Your task to perform on an android device: change the clock display to show seconds Image 0: 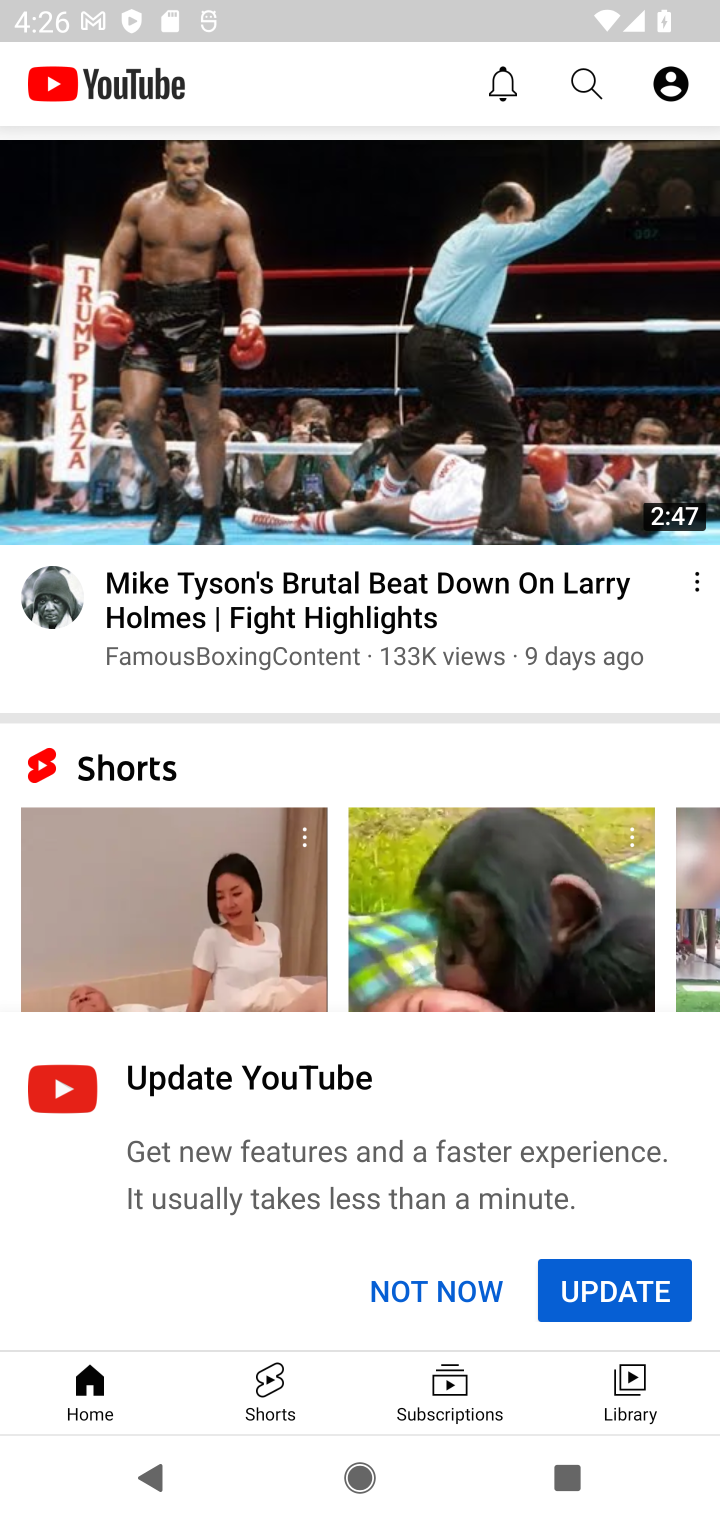
Step 0: press home button
Your task to perform on an android device: change the clock display to show seconds Image 1: 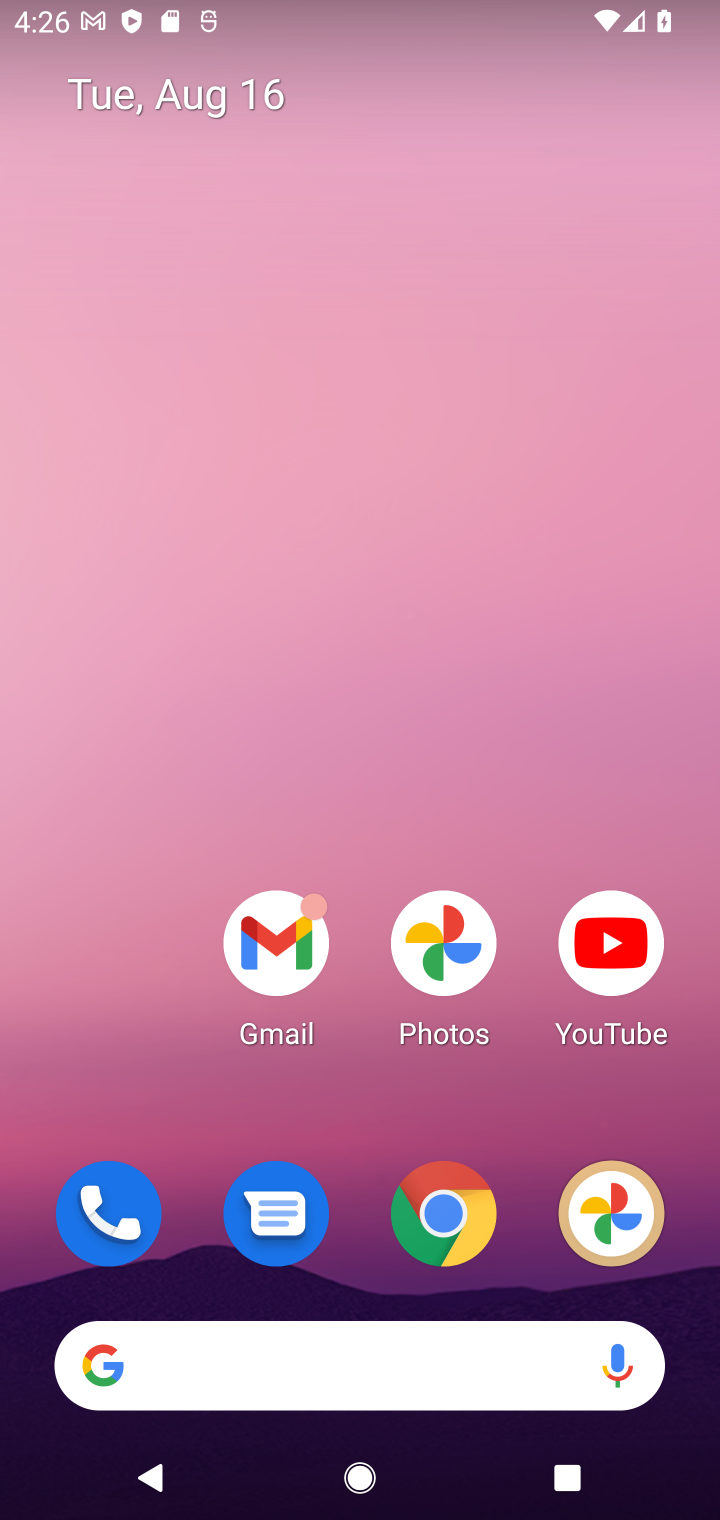
Step 1: drag from (419, 1104) to (479, 150)
Your task to perform on an android device: change the clock display to show seconds Image 2: 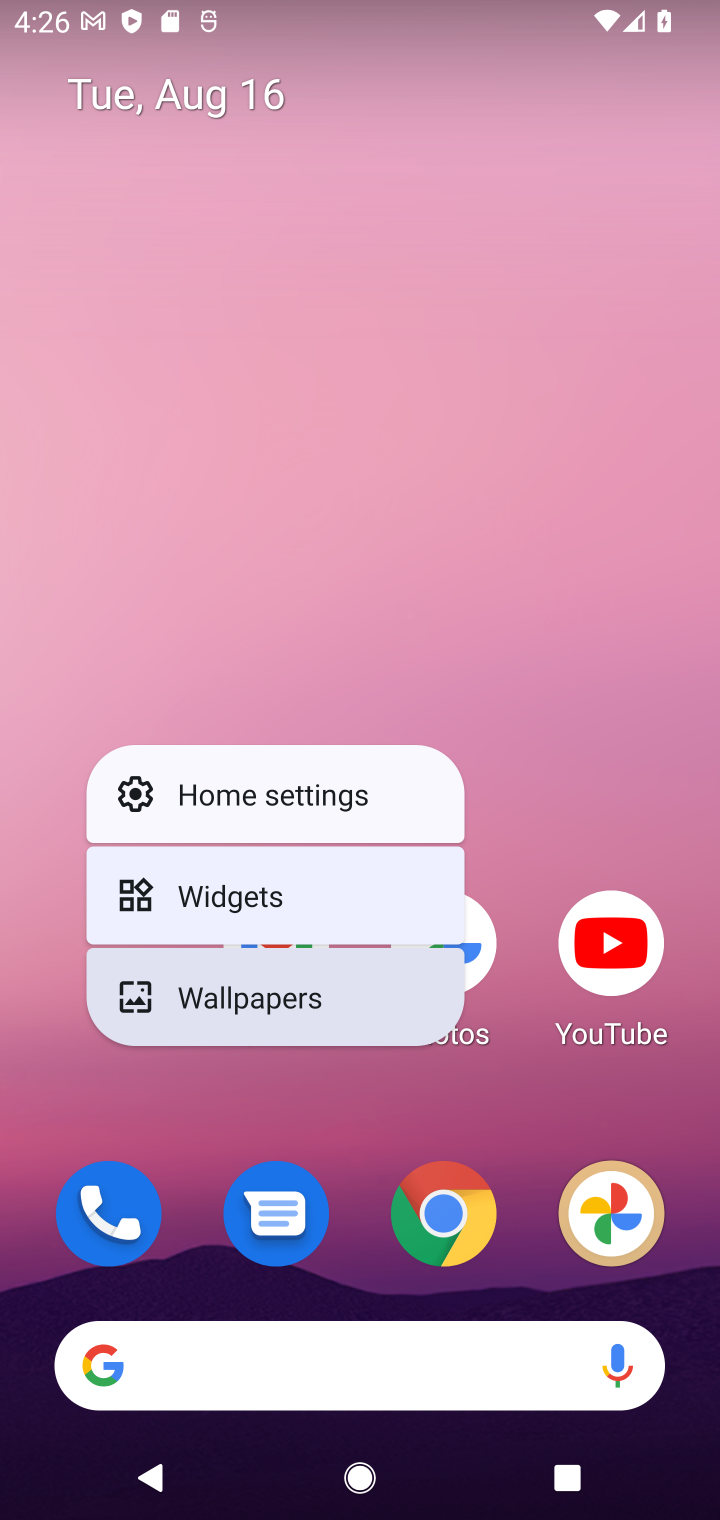
Step 2: click (252, 484)
Your task to perform on an android device: change the clock display to show seconds Image 3: 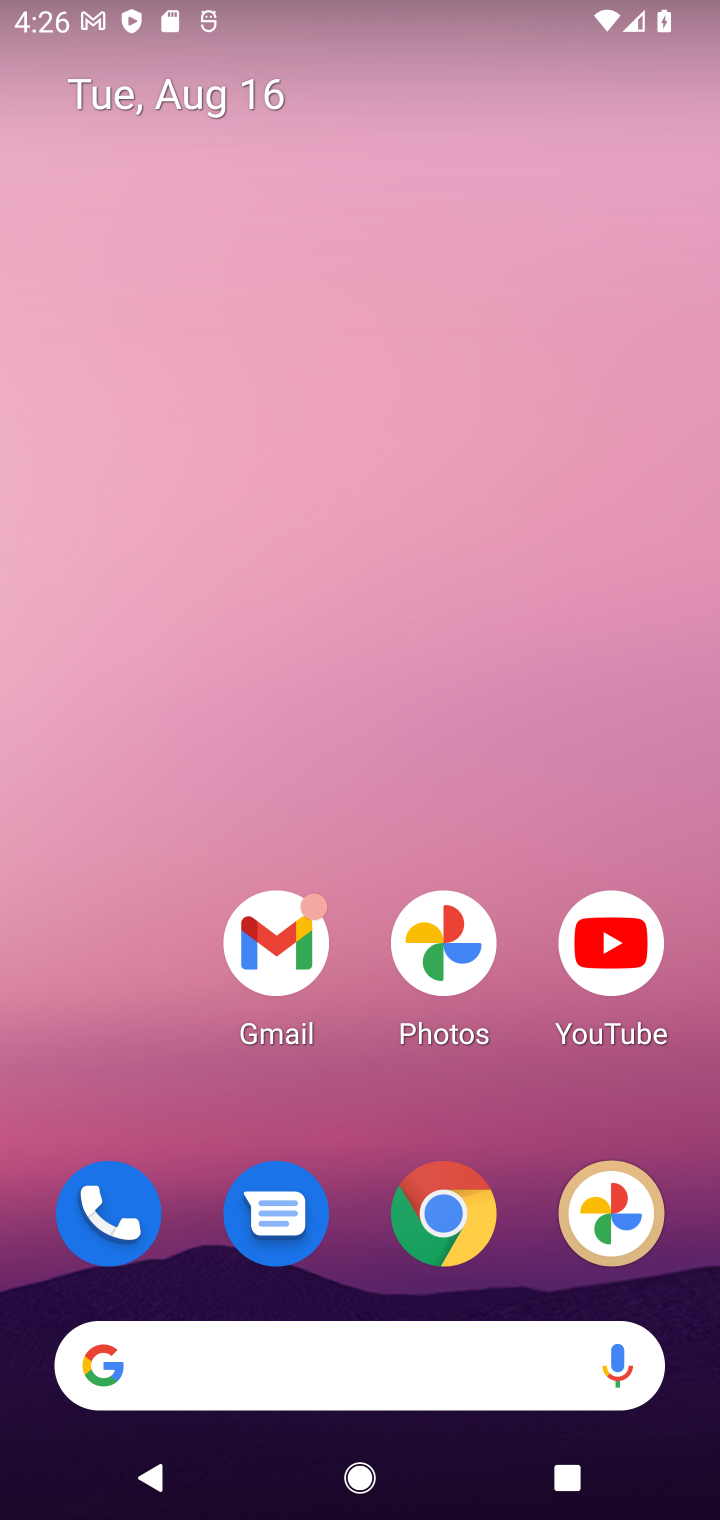
Step 3: click (130, 520)
Your task to perform on an android device: change the clock display to show seconds Image 4: 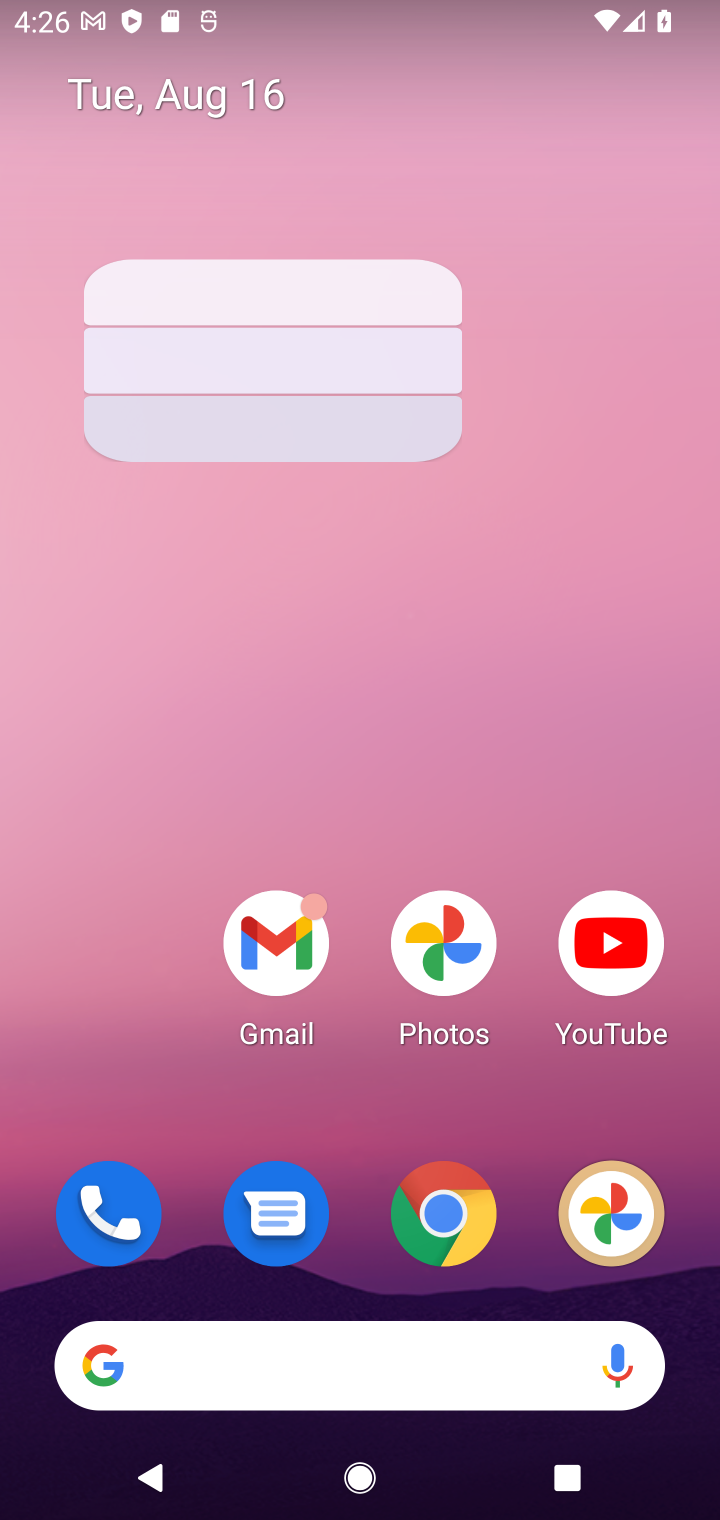
Step 4: drag from (239, 649) to (347, 19)
Your task to perform on an android device: change the clock display to show seconds Image 5: 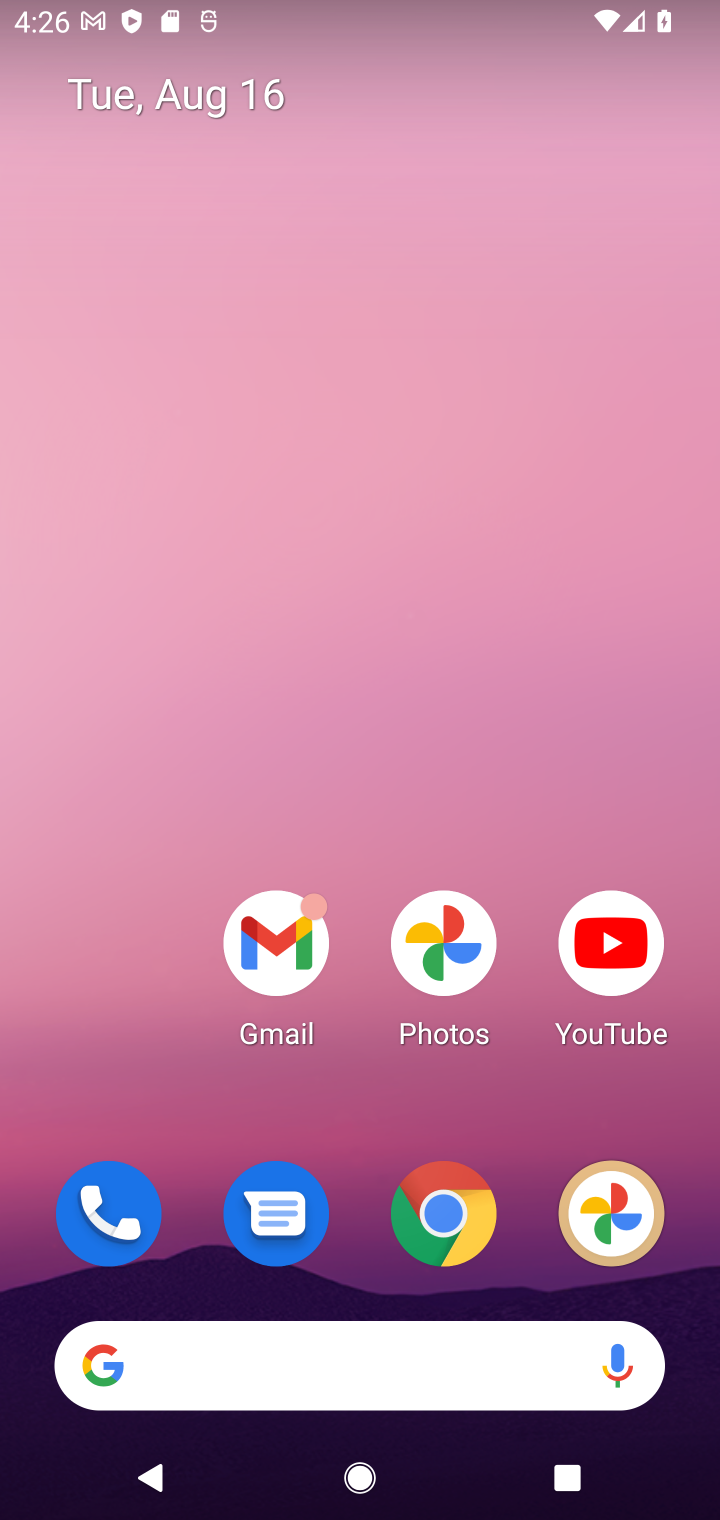
Step 5: click (534, 700)
Your task to perform on an android device: change the clock display to show seconds Image 6: 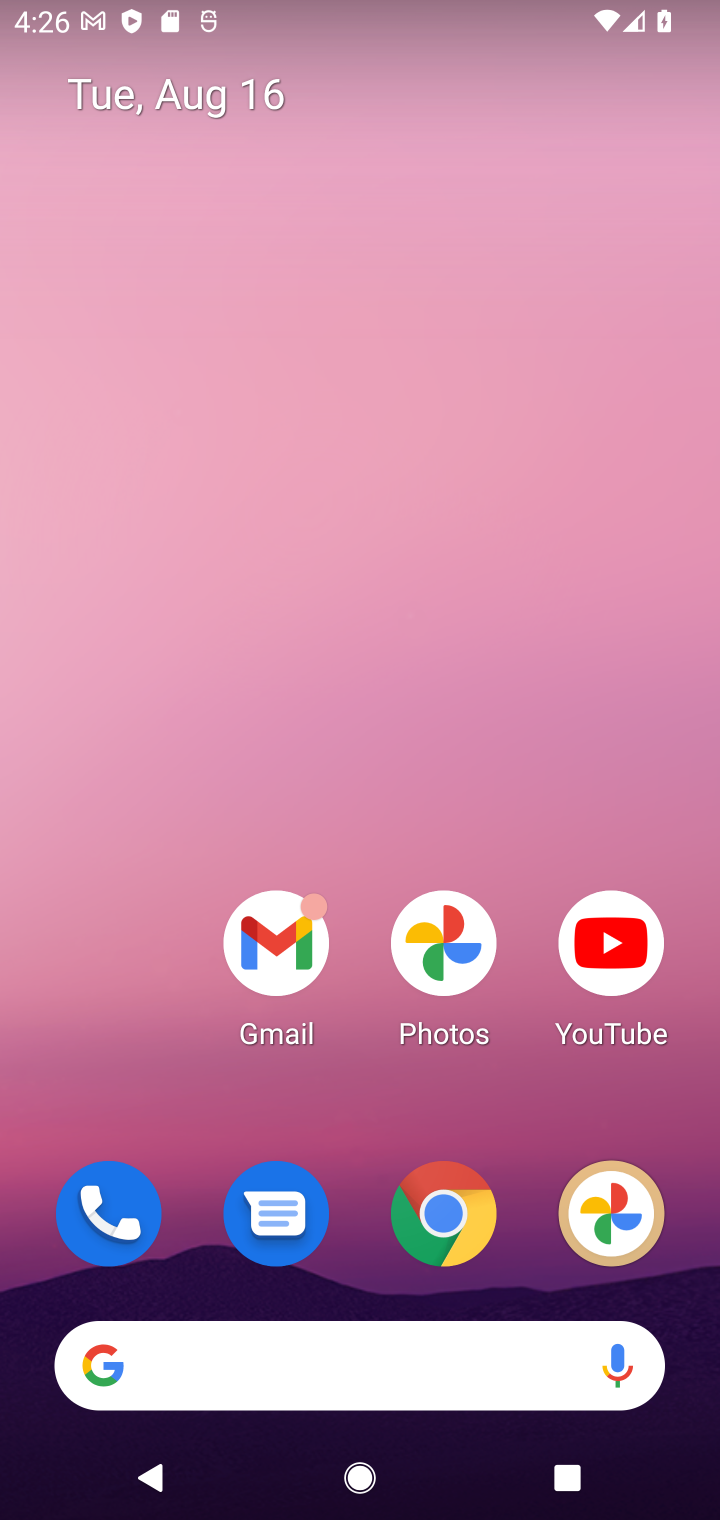
Step 6: drag from (406, 788) to (476, 135)
Your task to perform on an android device: change the clock display to show seconds Image 7: 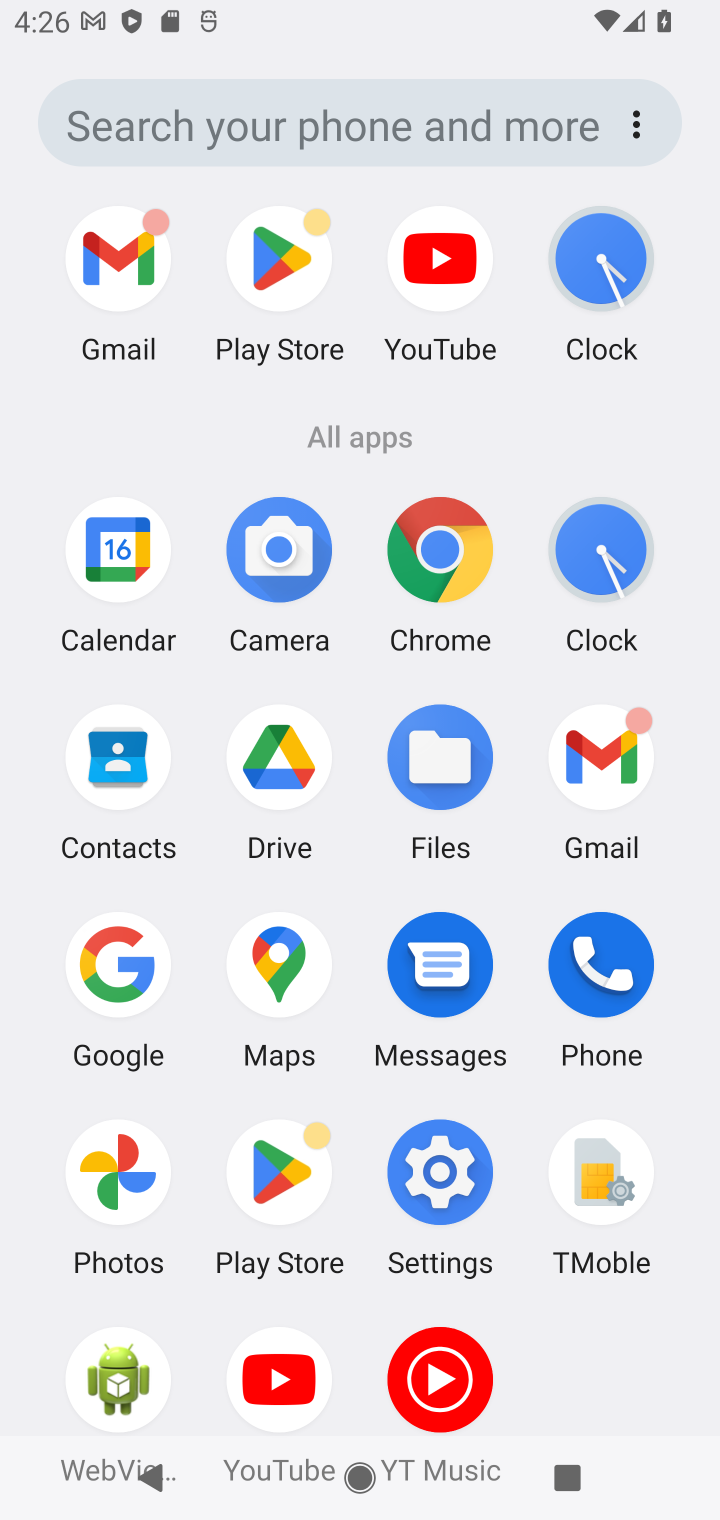
Step 7: click (603, 557)
Your task to perform on an android device: change the clock display to show seconds Image 8: 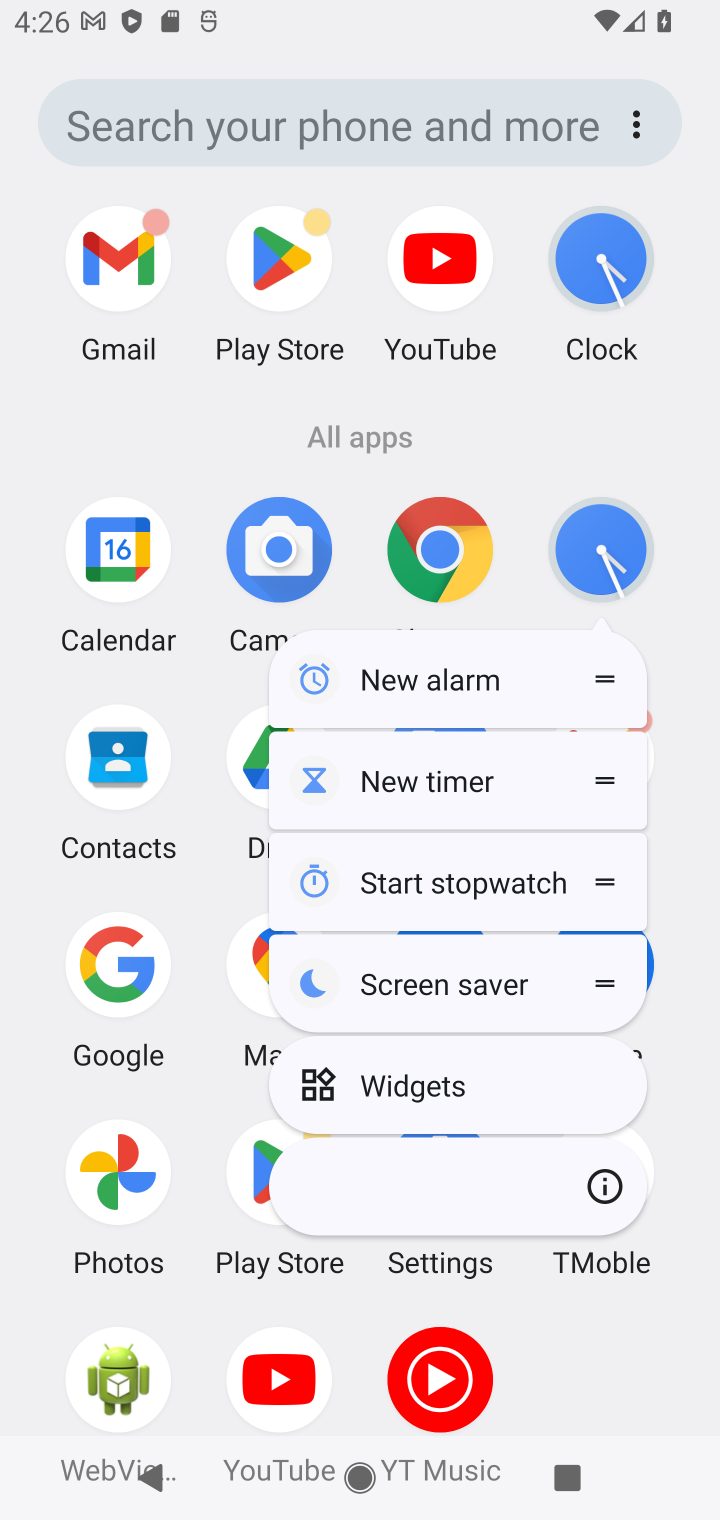
Step 8: click (605, 544)
Your task to perform on an android device: change the clock display to show seconds Image 9: 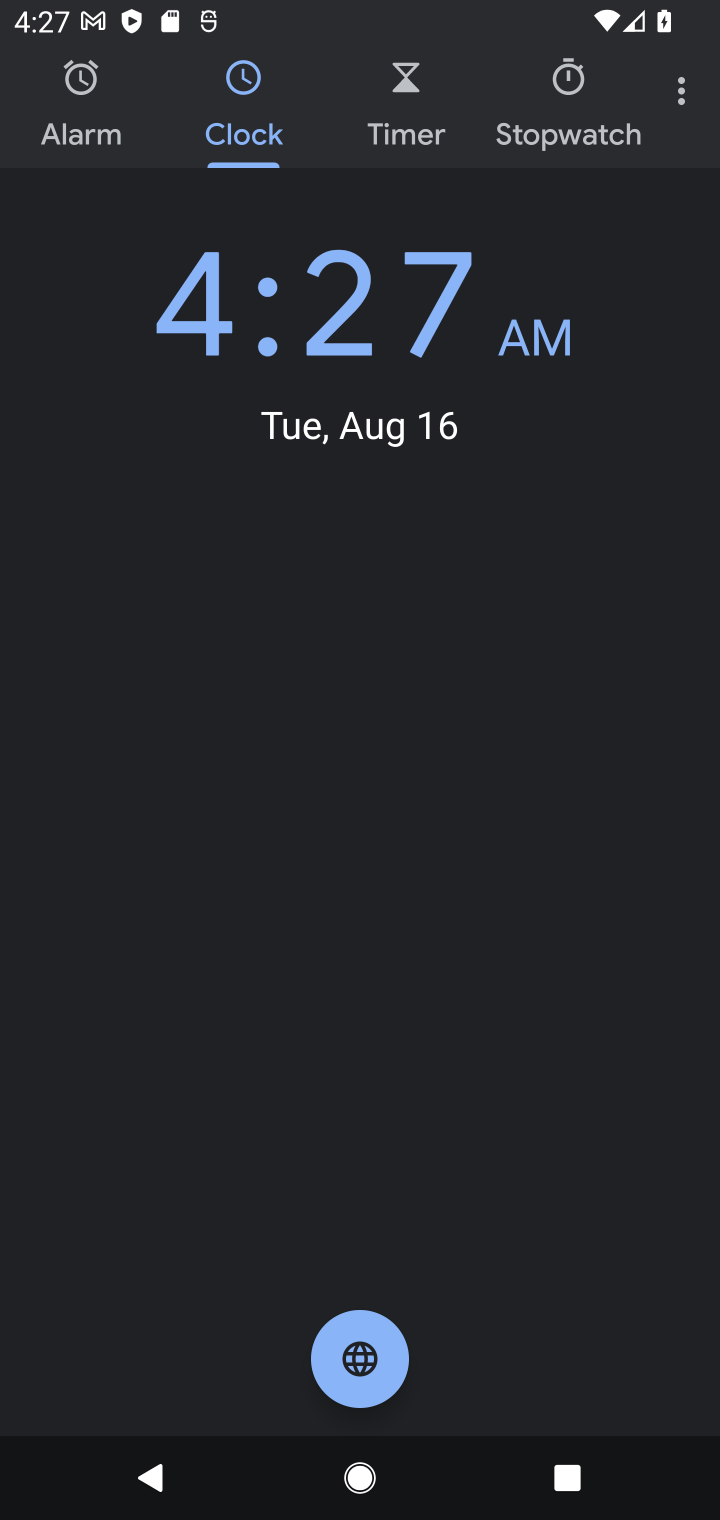
Step 9: click (682, 90)
Your task to perform on an android device: change the clock display to show seconds Image 10: 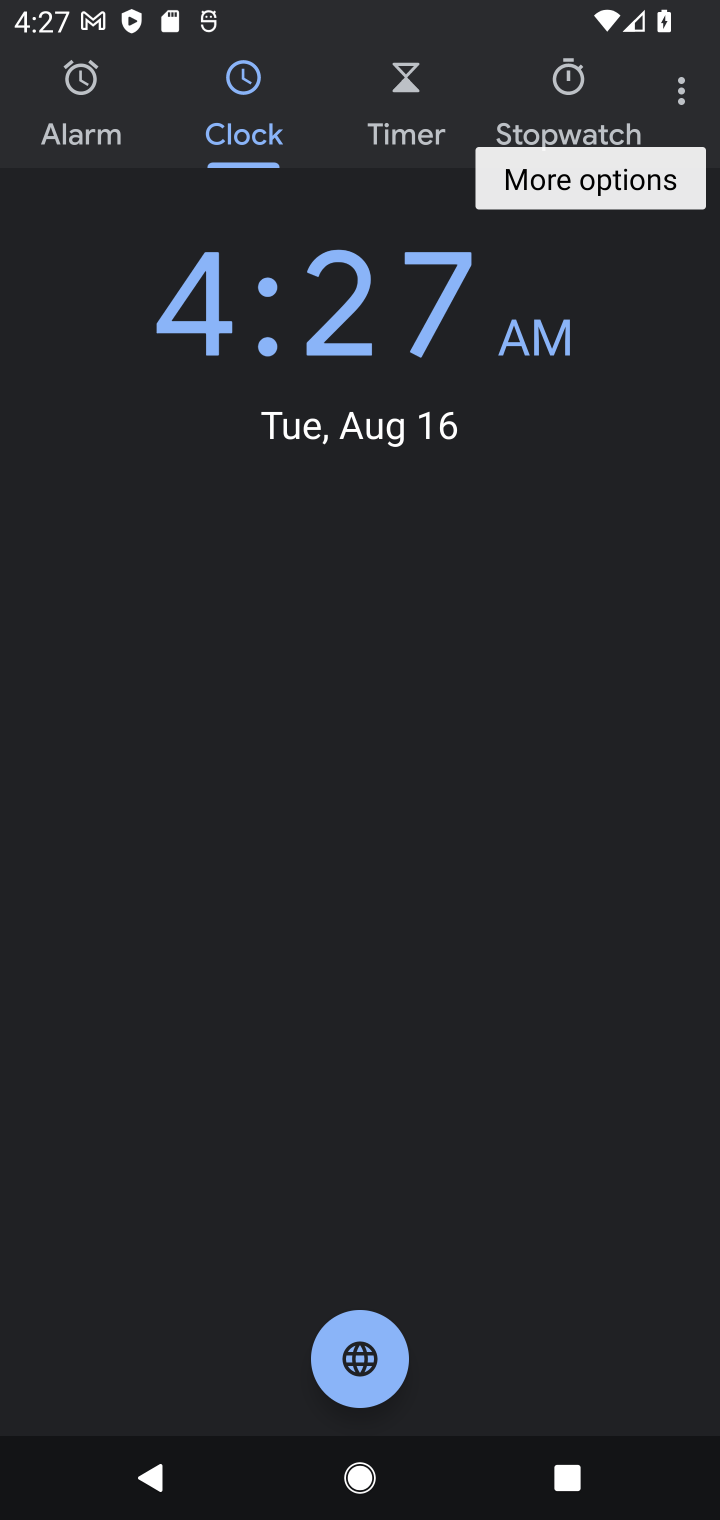
Step 10: click (682, 90)
Your task to perform on an android device: change the clock display to show seconds Image 11: 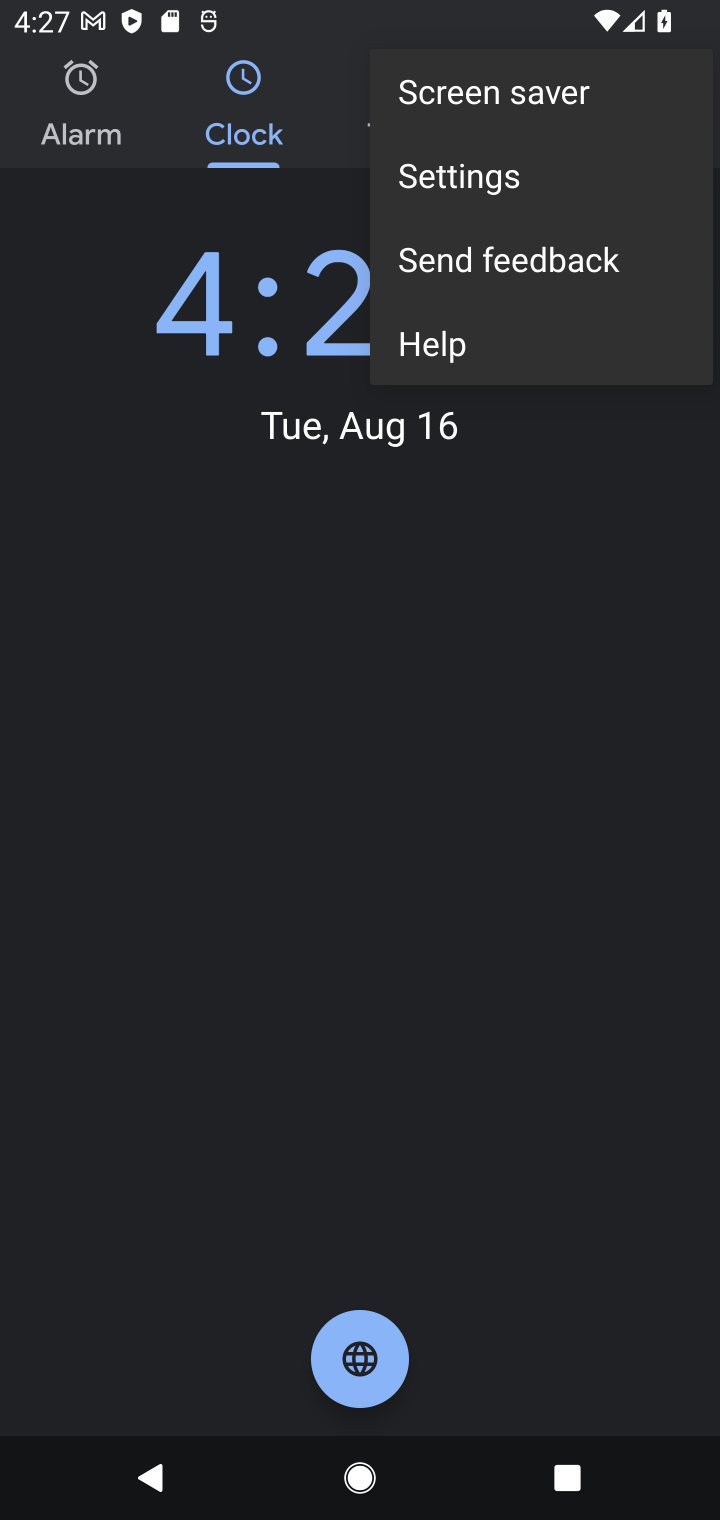
Step 11: click (525, 177)
Your task to perform on an android device: change the clock display to show seconds Image 12: 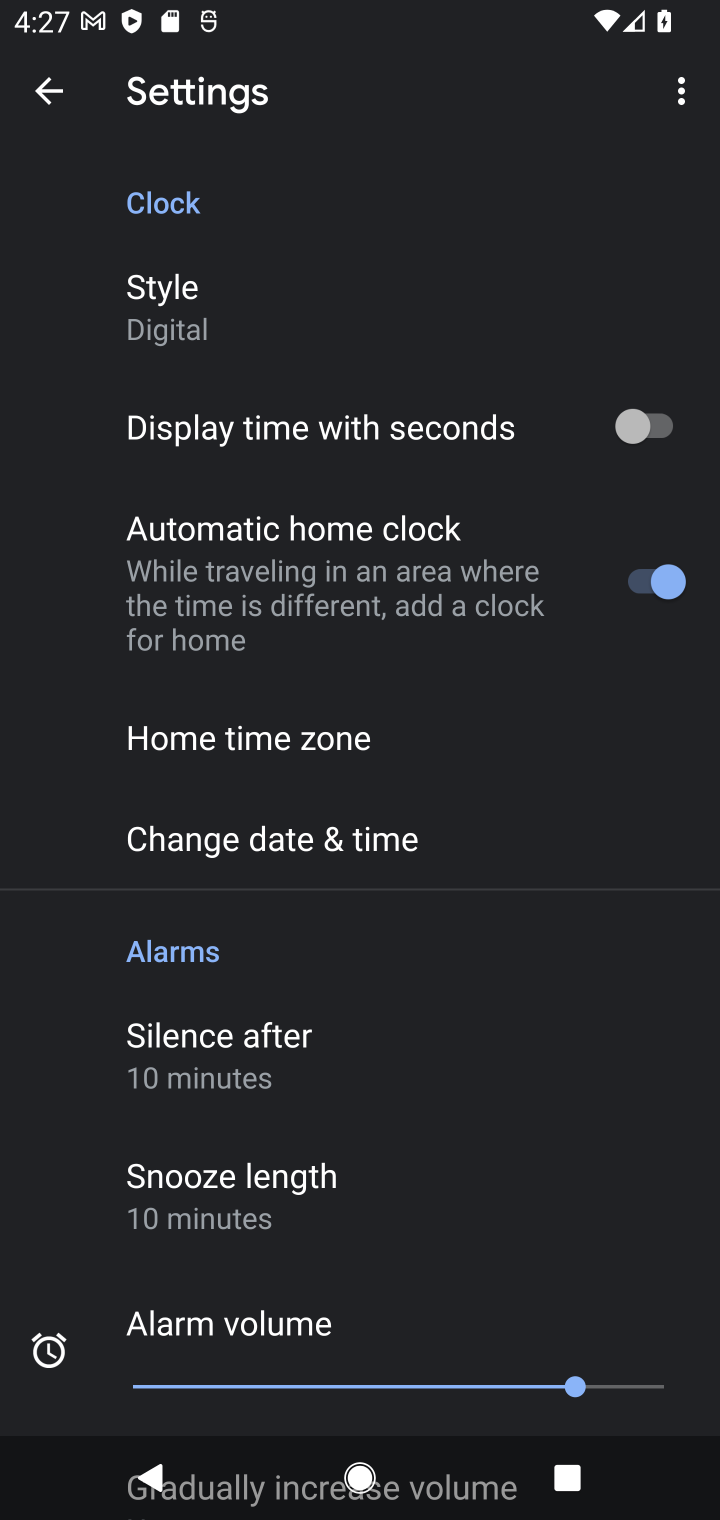
Step 12: click (611, 450)
Your task to perform on an android device: change the clock display to show seconds Image 13: 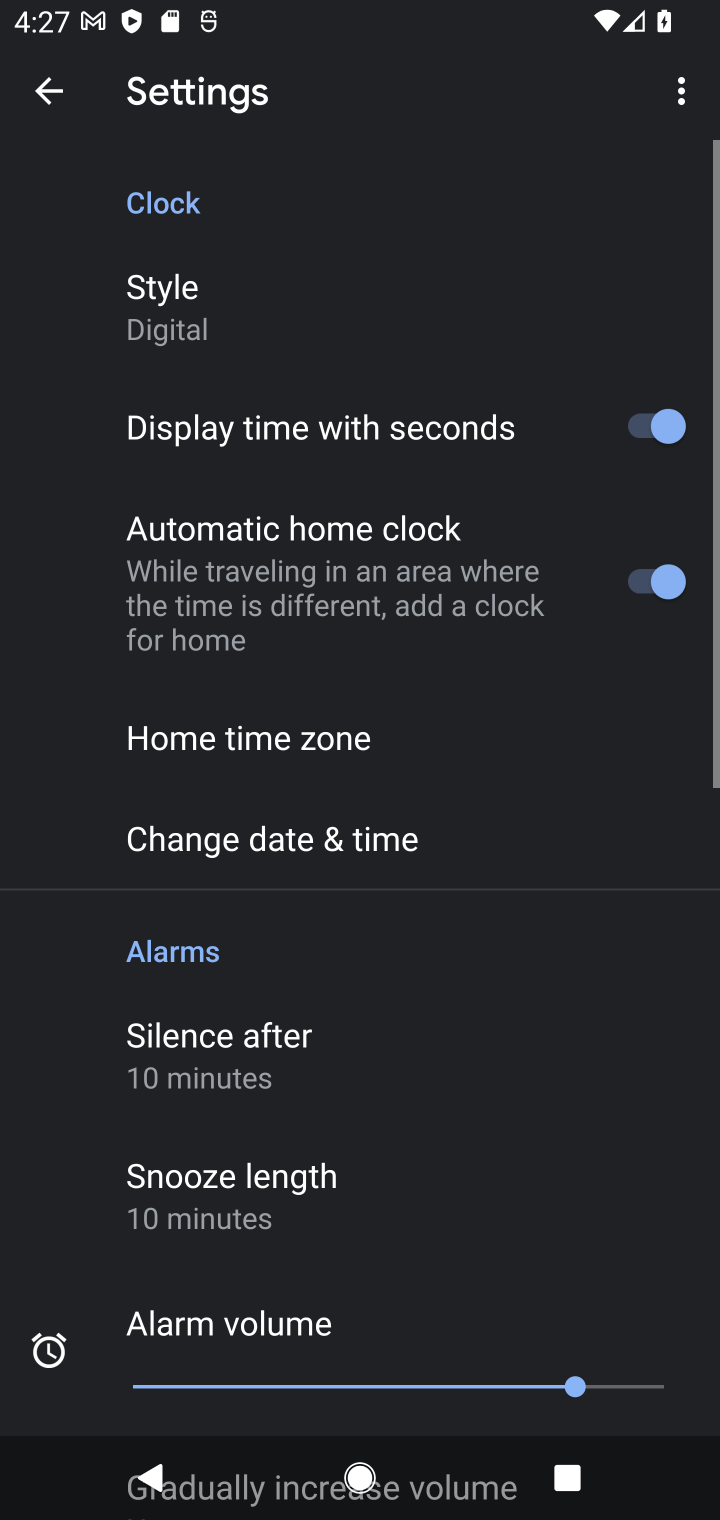
Step 13: task complete